Your task to perform on an android device: change keyboard looks Image 0: 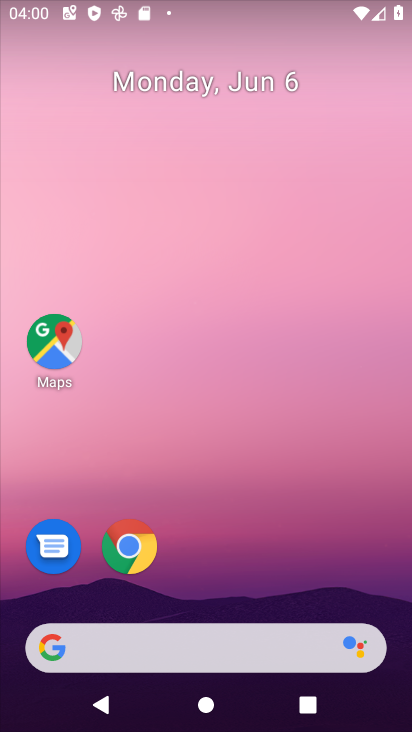
Step 0: drag from (279, 612) to (209, 91)
Your task to perform on an android device: change keyboard looks Image 1: 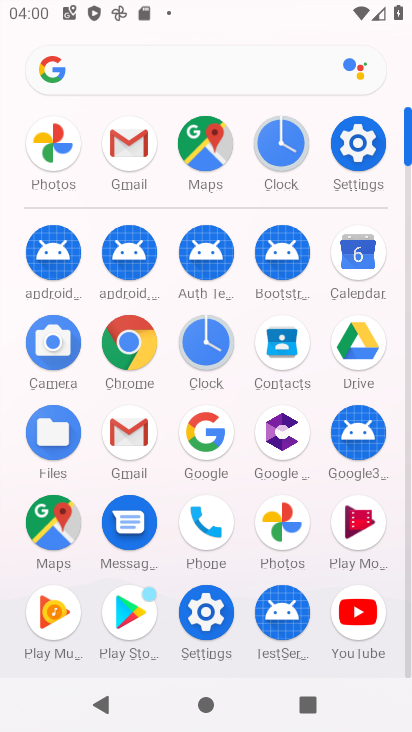
Step 1: click (341, 151)
Your task to perform on an android device: change keyboard looks Image 2: 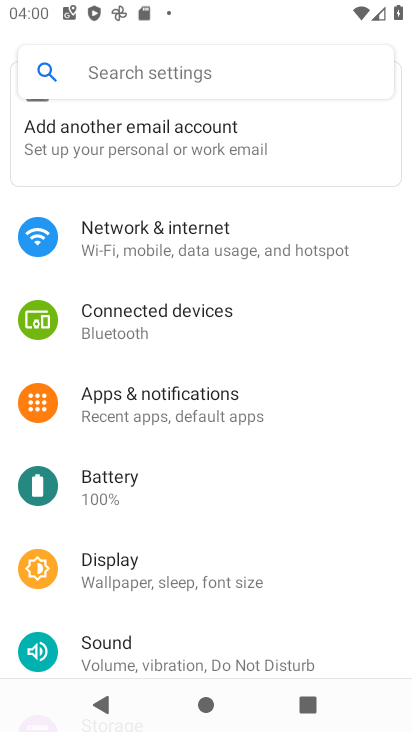
Step 2: drag from (194, 665) to (267, 232)
Your task to perform on an android device: change keyboard looks Image 3: 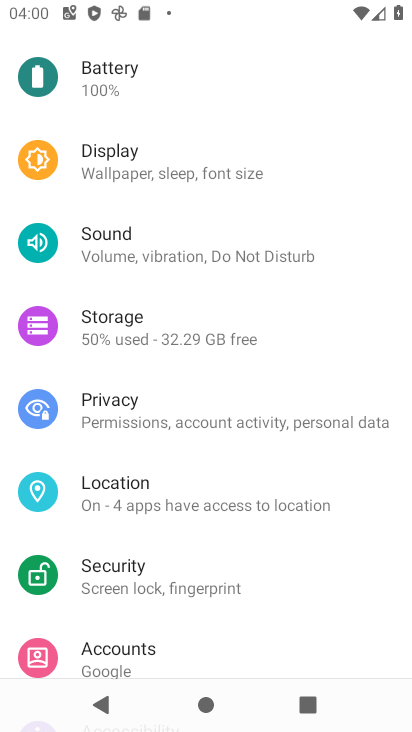
Step 3: drag from (178, 619) to (167, 393)
Your task to perform on an android device: change keyboard looks Image 4: 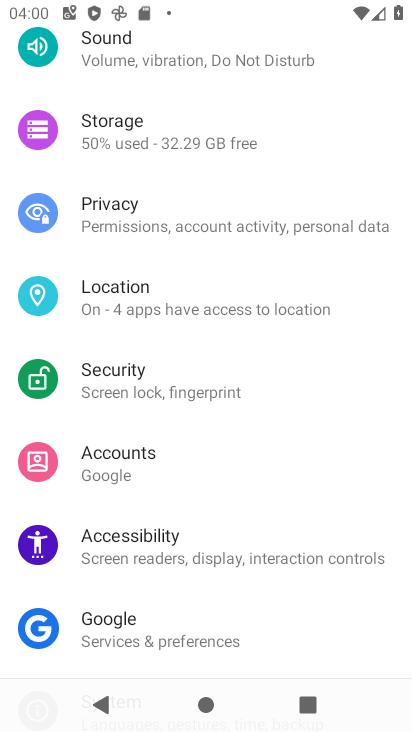
Step 4: drag from (182, 581) to (206, 80)
Your task to perform on an android device: change keyboard looks Image 5: 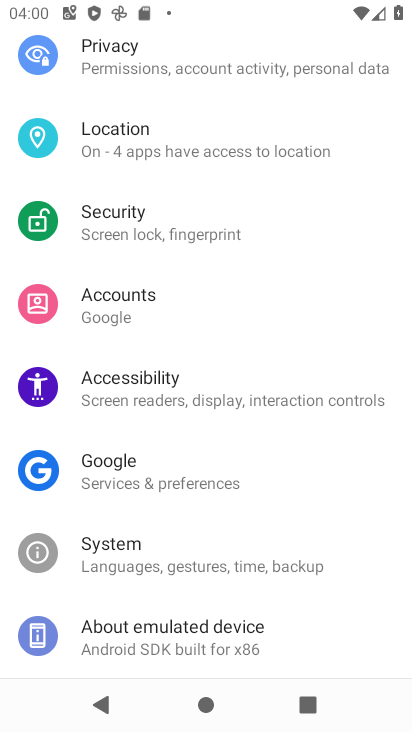
Step 5: click (196, 568)
Your task to perform on an android device: change keyboard looks Image 6: 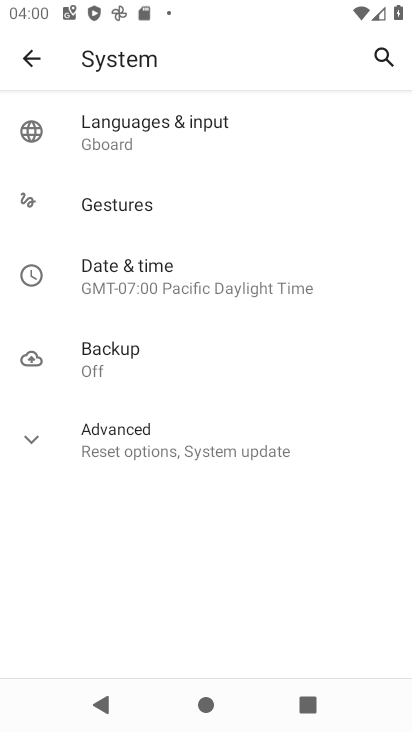
Step 6: click (192, 102)
Your task to perform on an android device: change keyboard looks Image 7: 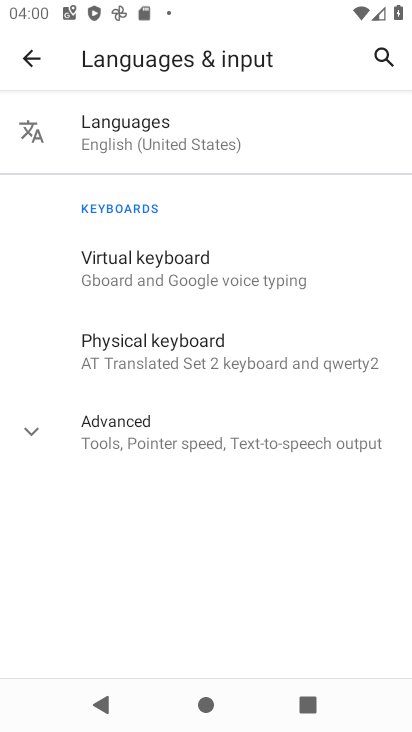
Step 7: click (173, 416)
Your task to perform on an android device: change keyboard looks Image 8: 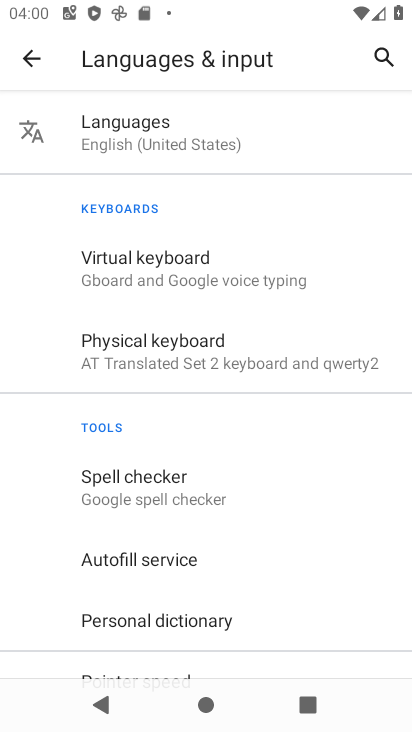
Step 8: task complete